Your task to perform on an android device: turn smart compose on in the gmail app Image 0: 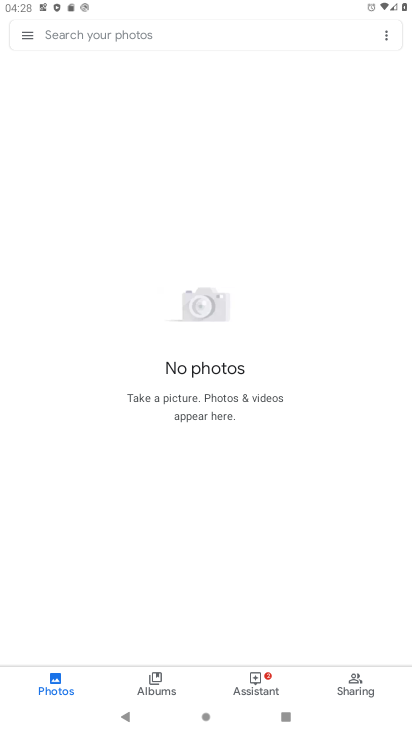
Step 0: press home button
Your task to perform on an android device: turn smart compose on in the gmail app Image 1: 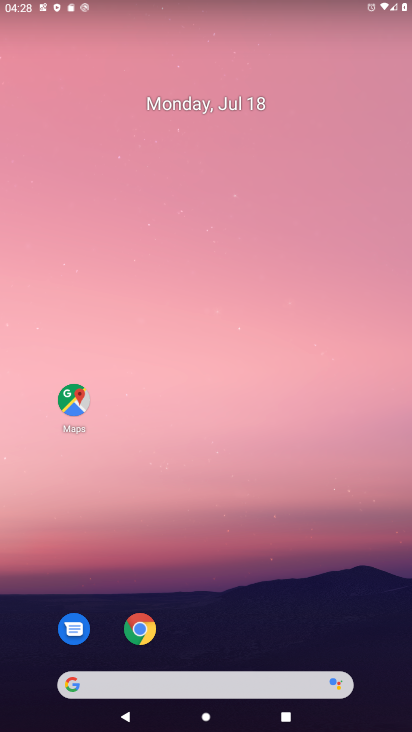
Step 1: drag from (377, 715) to (293, 195)
Your task to perform on an android device: turn smart compose on in the gmail app Image 2: 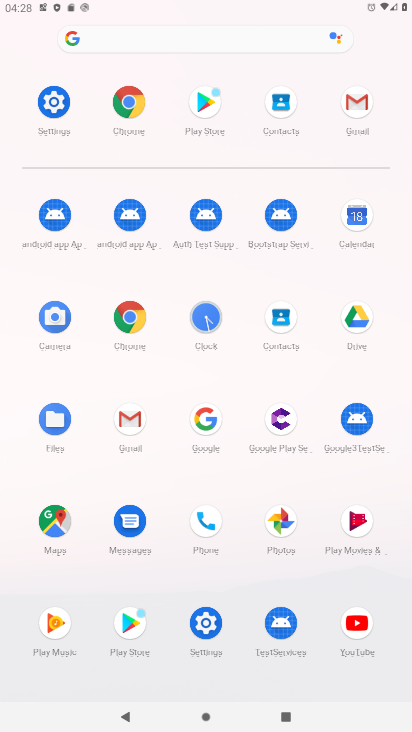
Step 2: click (124, 422)
Your task to perform on an android device: turn smart compose on in the gmail app Image 3: 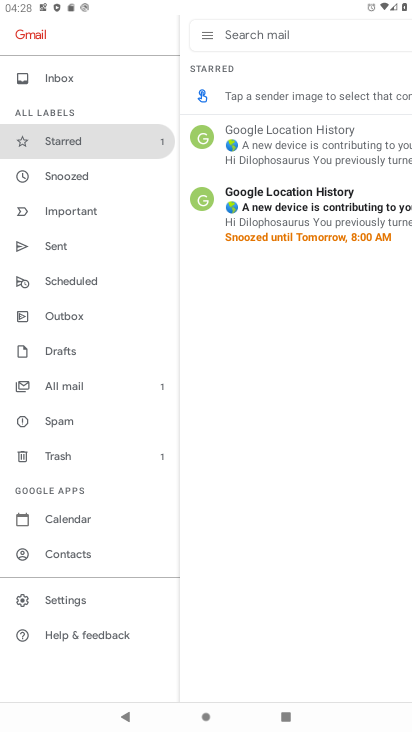
Step 3: task complete